Your task to perform on an android device: Search for vegetarian restaurants on Maps Image 0: 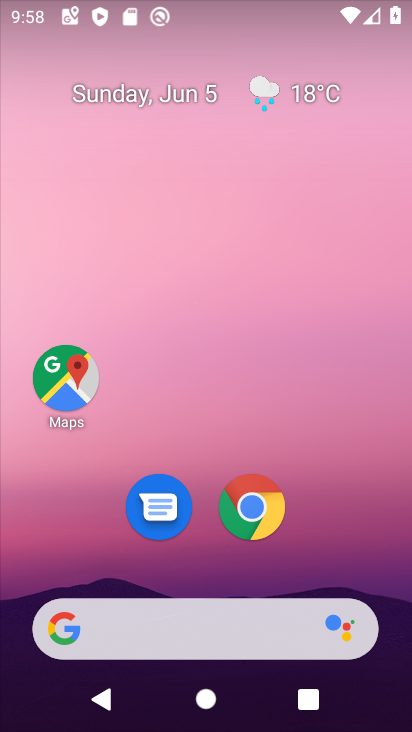
Step 0: click (63, 389)
Your task to perform on an android device: Search for vegetarian restaurants on Maps Image 1: 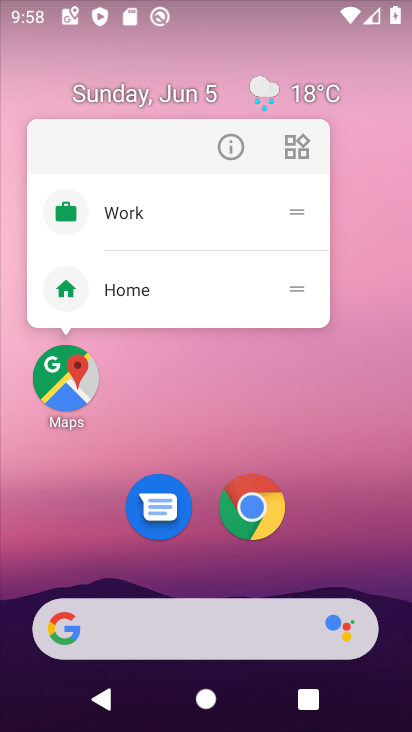
Step 1: click (61, 390)
Your task to perform on an android device: Search for vegetarian restaurants on Maps Image 2: 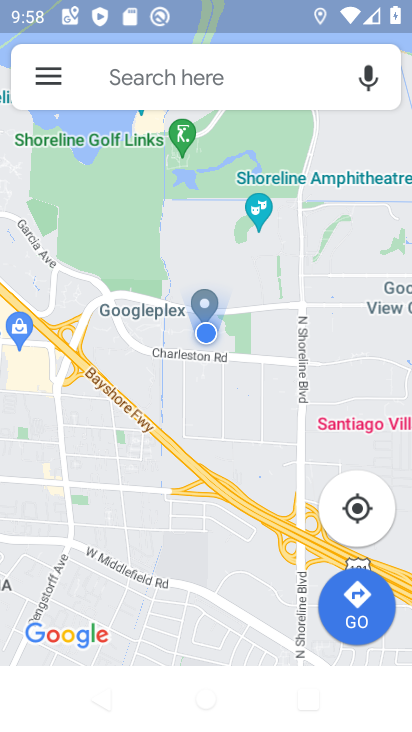
Step 2: click (157, 81)
Your task to perform on an android device: Search for vegetarian restaurants on Maps Image 3: 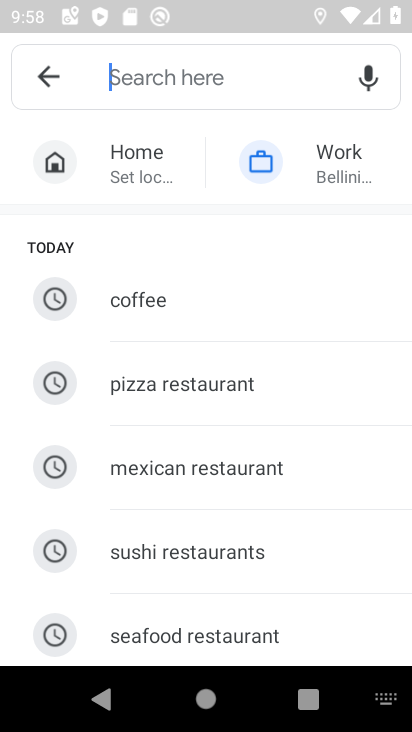
Step 3: type "vegetarian restaurants"
Your task to perform on an android device: Search for vegetarian restaurants on Maps Image 4: 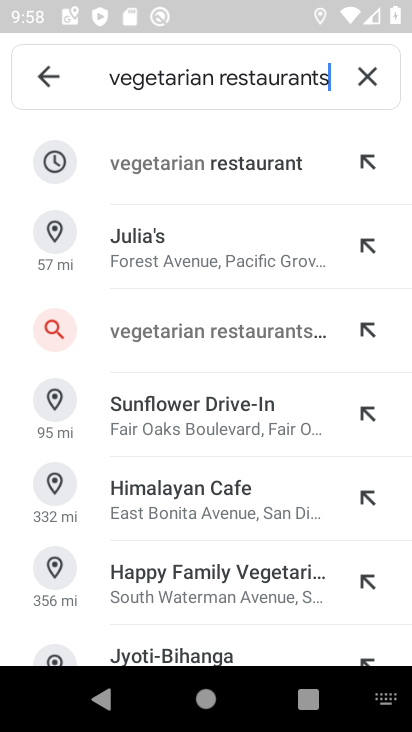
Step 4: click (248, 168)
Your task to perform on an android device: Search for vegetarian restaurants on Maps Image 5: 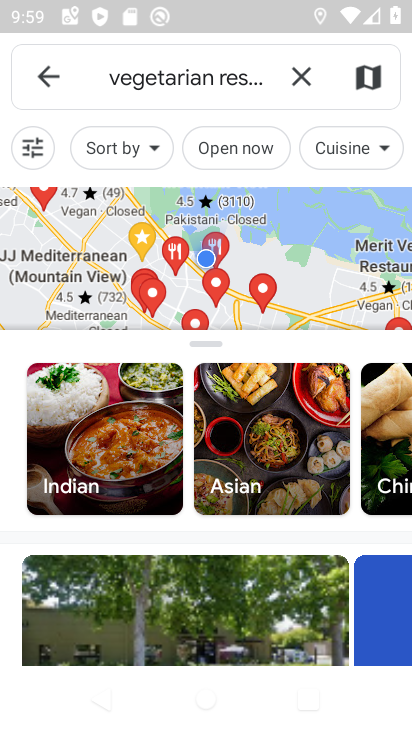
Step 5: task complete